Your task to perform on an android device: change text size in settings app Image 0: 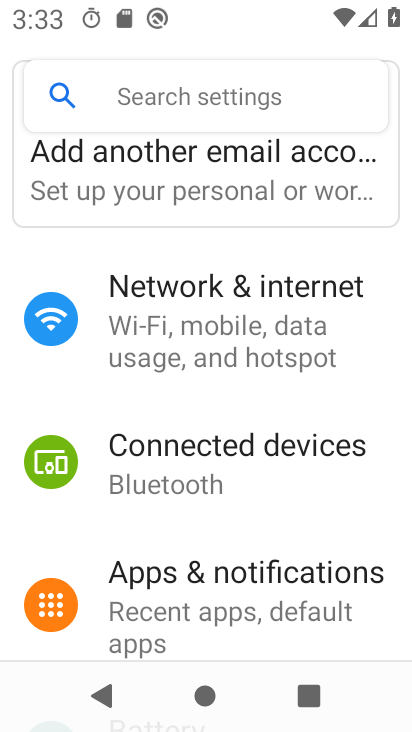
Step 0: press home button
Your task to perform on an android device: change text size in settings app Image 1: 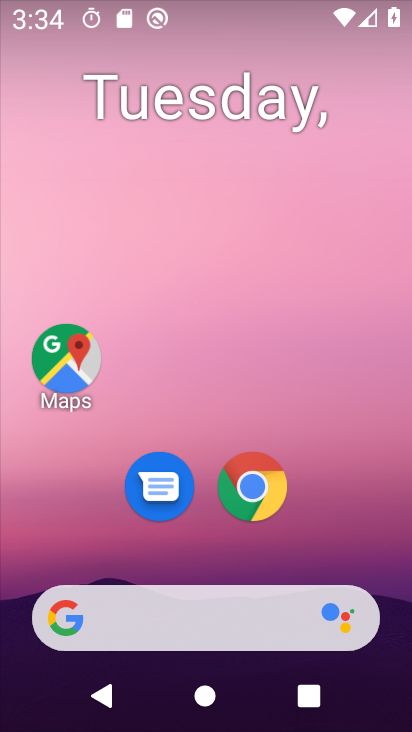
Step 1: drag from (376, 548) to (410, 229)
Your task to perform on an android device: change text size in settings app Image 2: 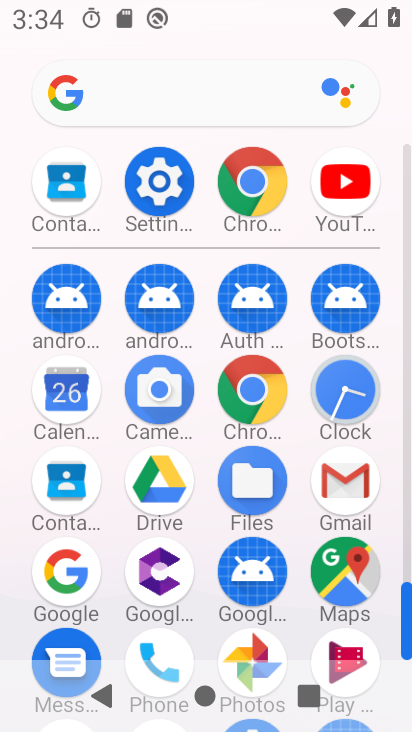
Step 2: click (160, 190)
Your task to perform on an android device: change text size in settings app Image 3: 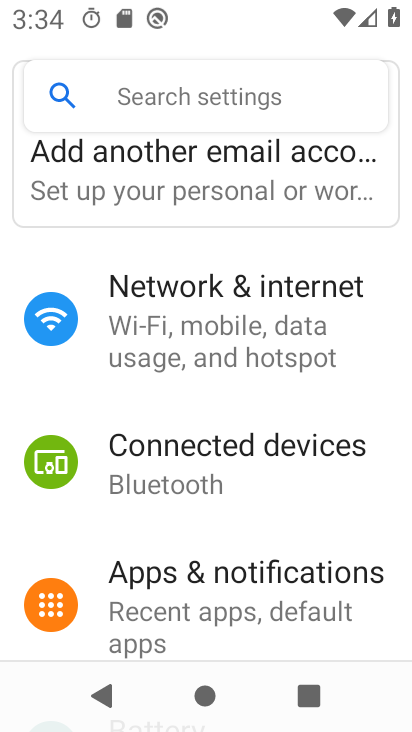
Step 3: drag from (370, 510) to (369, 404)
Your task to perform on an android device: change text size in settings app Image 4: 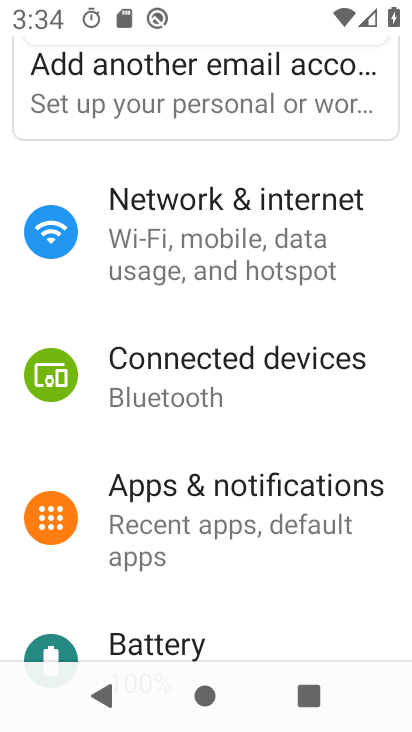
Step 4: drag from (367, 549) to (368, 380)
Your task to perform on an android device: change text size in settings app Image 5: 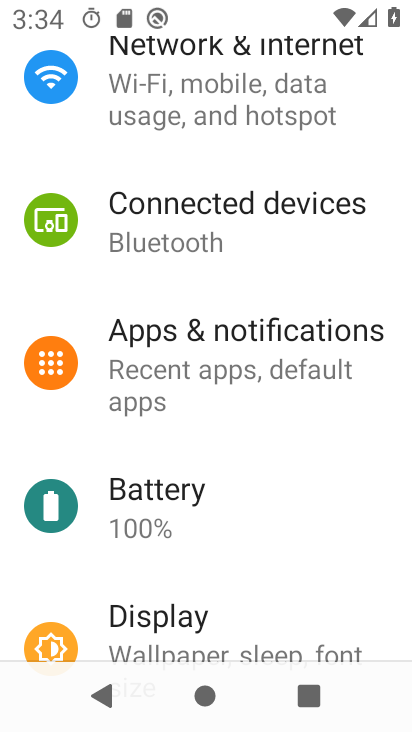
Step 5: drag from (337, 523) to (335, 361)
Your task to perform on an android device: change text size in settings app Image 6: 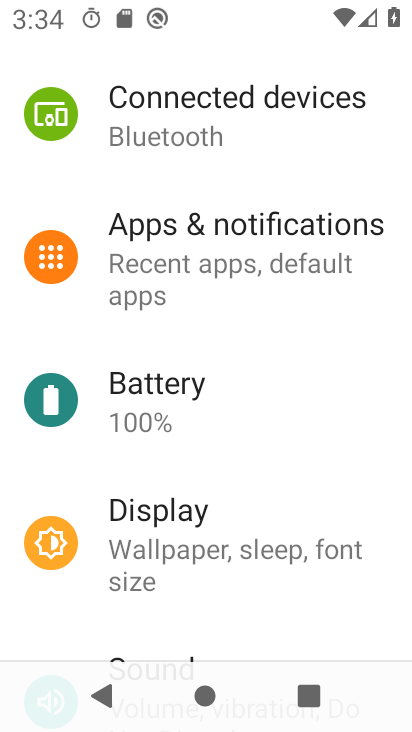
Step 6: drag from (320, 512) to (327, 361)
Your task to perform on an android device: change text size in settings app Image 7: 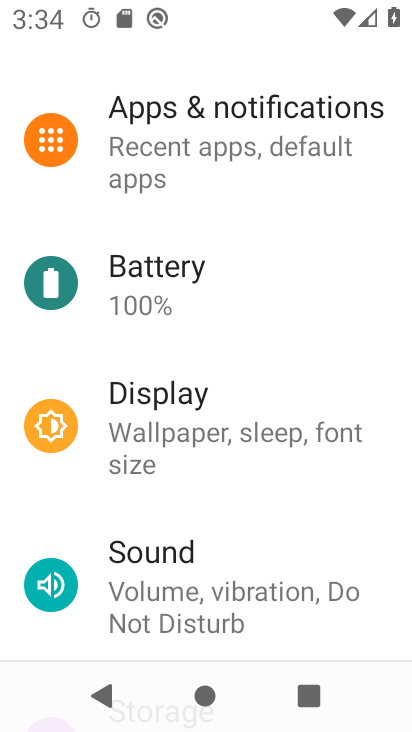
Step 7: click (285, 448)
Your task to perform on an android device: change text size in settings app Image 8: 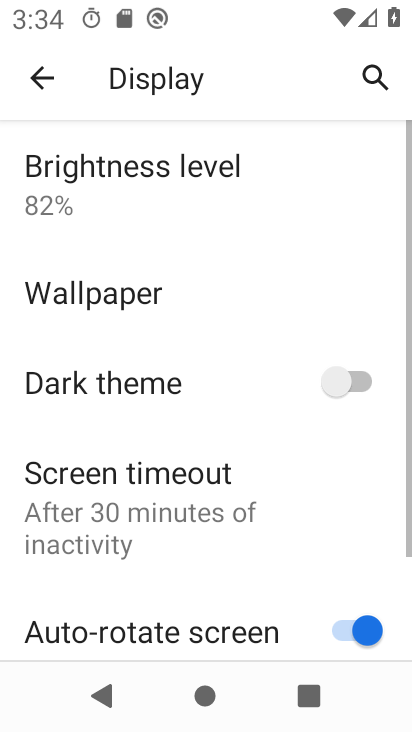
Step 8: drag from (288, 498) to (285, 400)
Your task to perform on an android device: change text size in settings app Image 9: 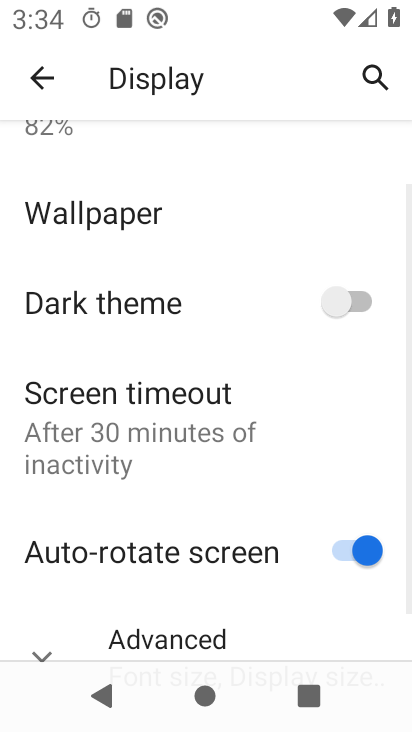
Step 9: drag from (286, 589) to (287, 432)
Your task to perform on an android device: change text size in settings app Image 10: 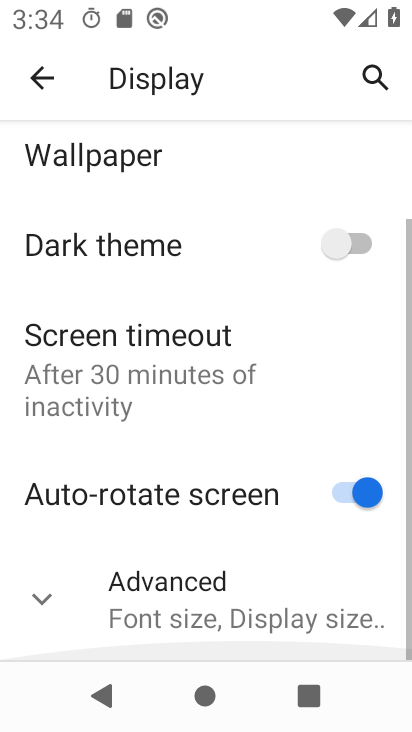
Step 10: click (278, 579)
Your task to perform on an android device: change text size in settings app Image 11: 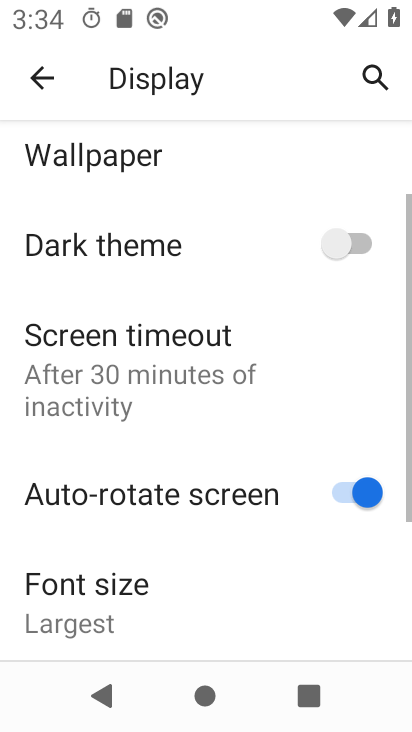
Step 11: drag from (278, 572) to (270, 444)
Your task to perform on an android device: change text size in settings app Image 12: 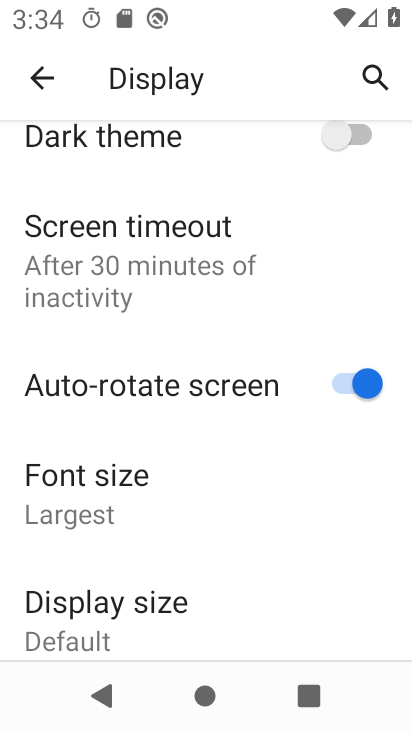
Step 12: drag from (236, 552) to (238, 417)
Your task to perform on an android device: change text size in settings app Image 13: 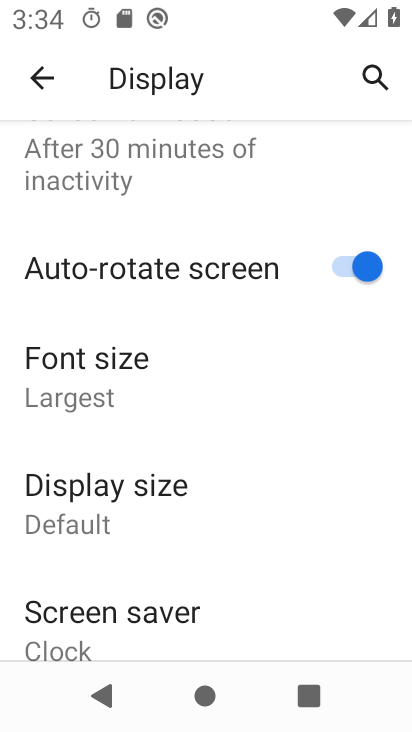
Step 13: click (195, 410)
Your task to perform on an android device: change text size in settings app Image 14: 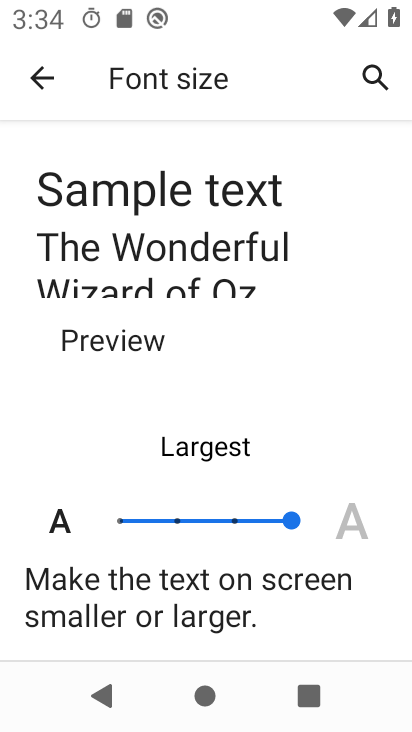
Step 14: click (234, 522)
Your task to perform on an android device: change text size in settings app Image 15: 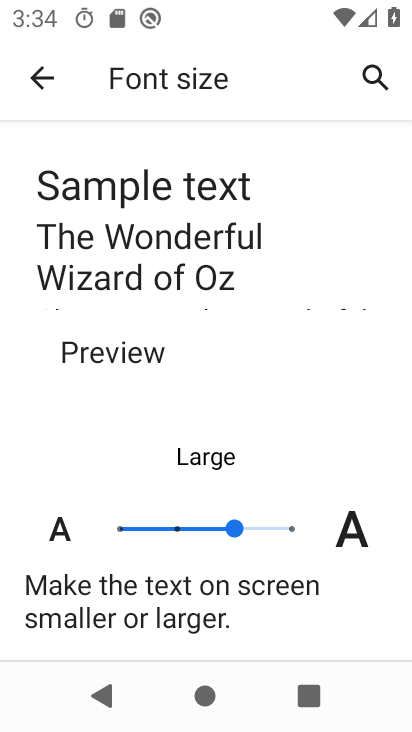
Step 15: task complete